Your task to perform on an android device: Go to ESPN.com Image 0: 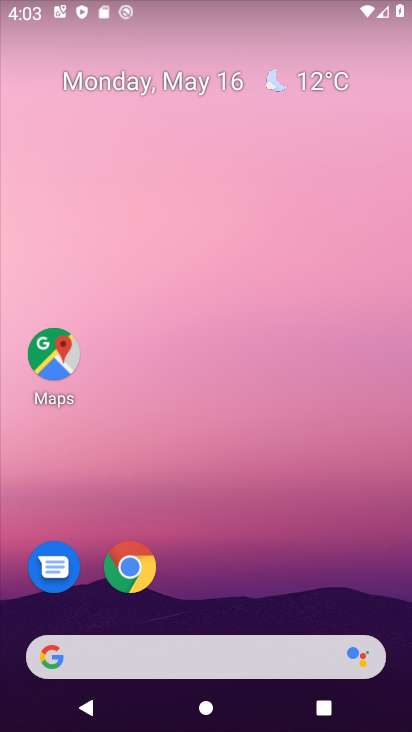
Step 0: drag from (198, 528) to (177, 1)
Your task to perform on an android device: Go to ESPN.com Image 1: 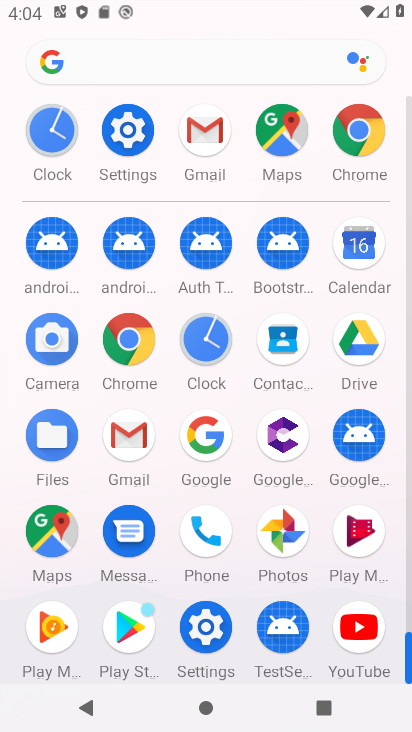
Step 1: drag from (0, 534) to (0, 227)
Your task to perform on an android device: Go to ESPN.com Image 2: 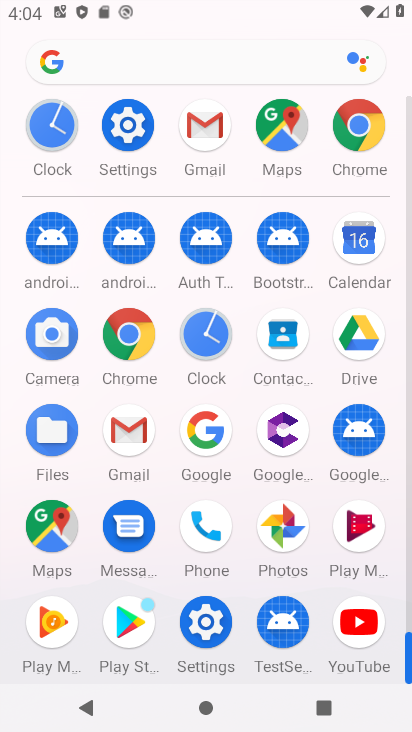
Step 2: click (128, 329)
Your task to perform on an android device: Go to ESPN.com Image 3: 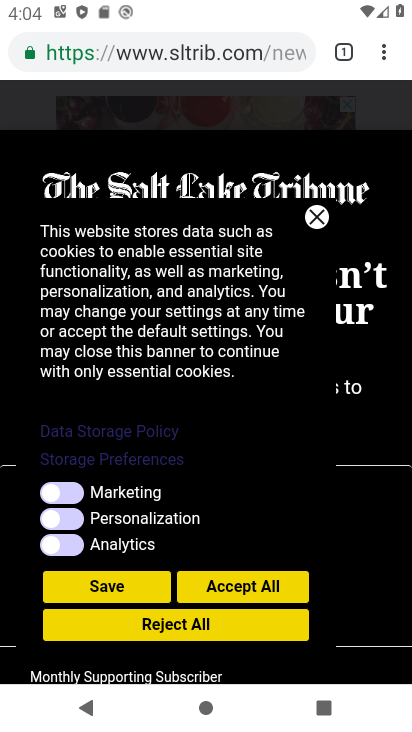
Step 3: click (173, 51)
Your task to perform on an android device: Go to ESPN.com Image 4: 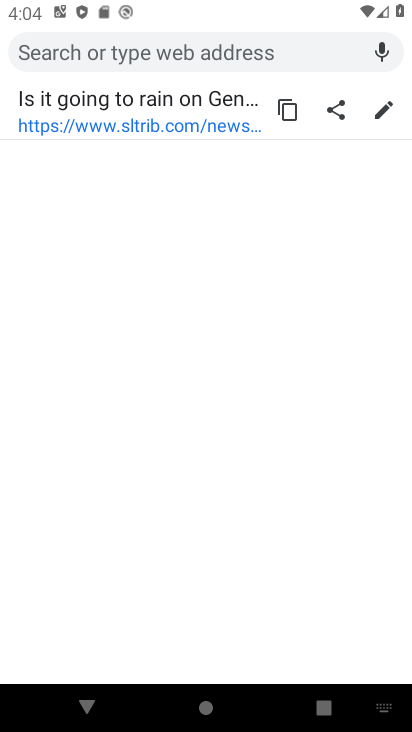
Step 4: type "ESPN.com"
Your task to perform on an android device: Go to ESPN.com Image 5: 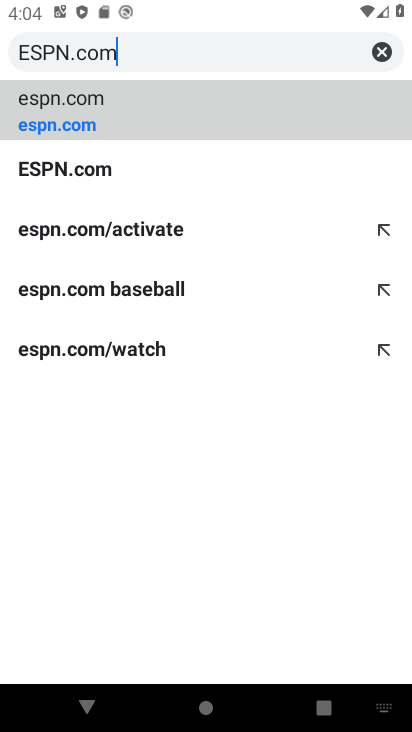
Step 5: type ""
Your task to perform on an android device: Go to ESPN.com Image 6: 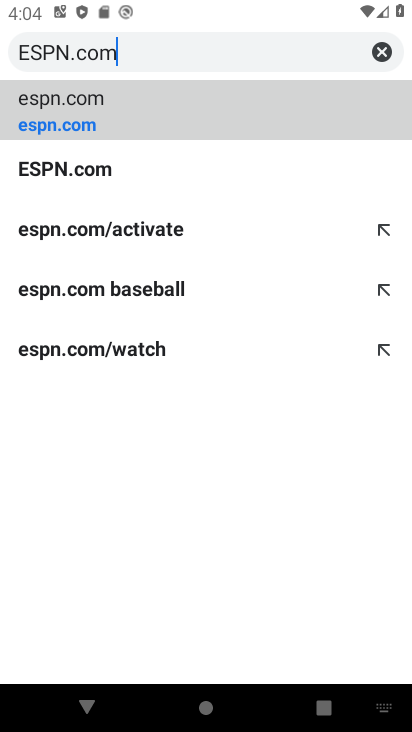
Step 6: click (113, 111)
Your task to perform on an android device: Go to ESPN.com Image 7: 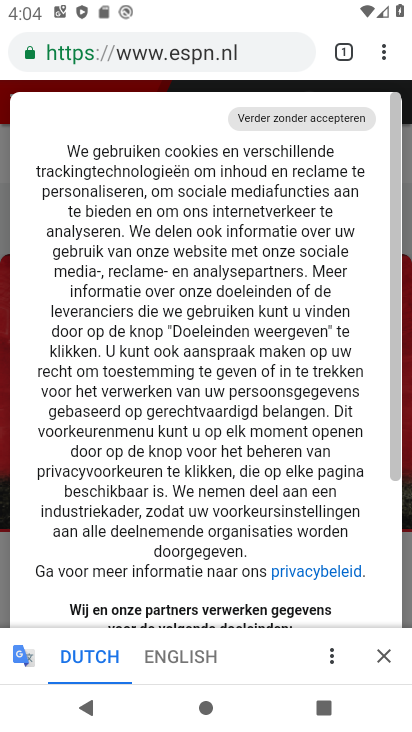
Step 7: drag from (158, 569) to (189, 166)
Your task to perform on an android device: Go to ESPN.com Image 8: 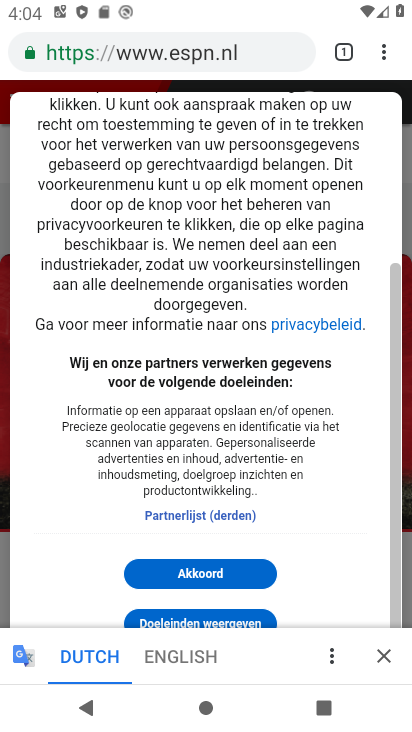
Step 8: click (193, 573)
Your task to perform on an android device: Go to ESPN.com Image 9: 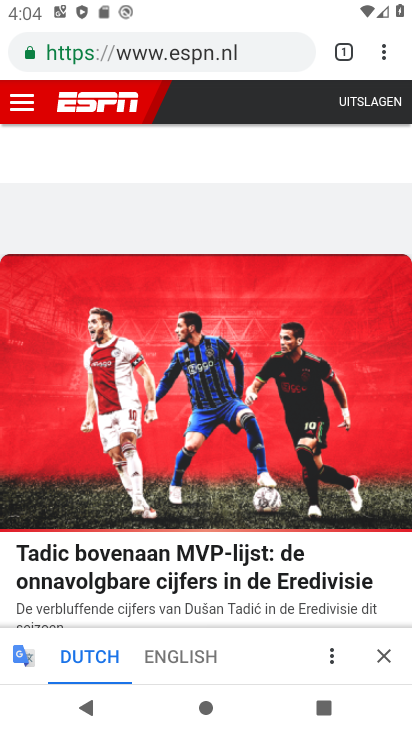
Step 9: task complete